Your task to perform on an android device: Show me popular videos on Youtube Image 0: 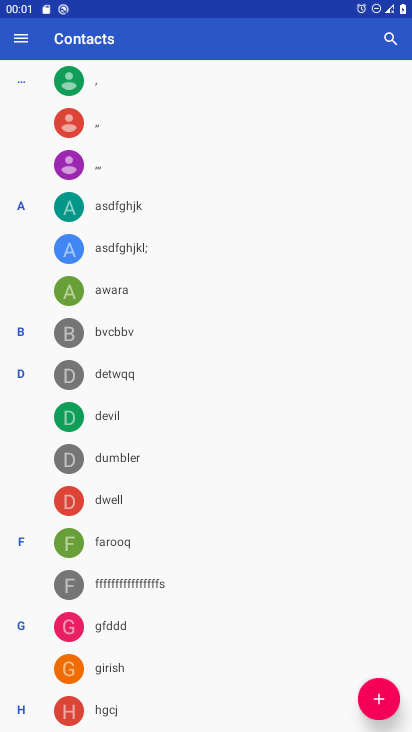
Step 0: press home button
Your task to perform on an android device: Show me popular videos on Youtube Image 1: 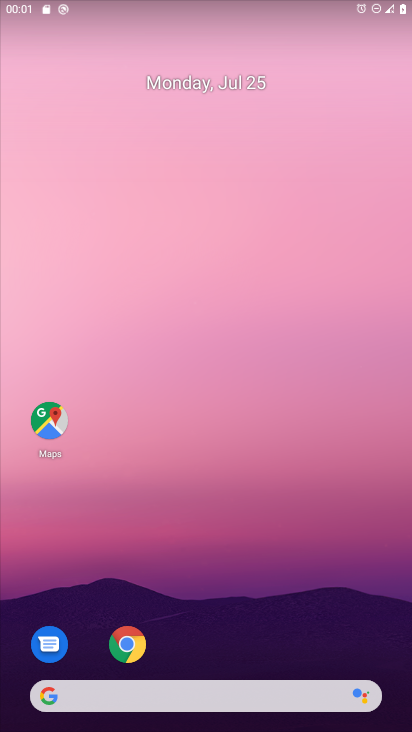
Step 1: drag from (385, 653) to (352, 127)
Your task to perform on an android device: Show me popular videos on Youtube Image 2: 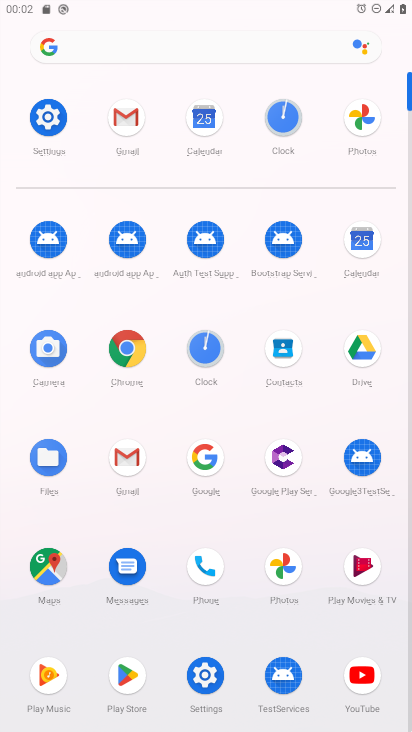
Step 2: click (361, 675)
Your task to perform on an android device: Show me popular videos on Youtube Image 3: 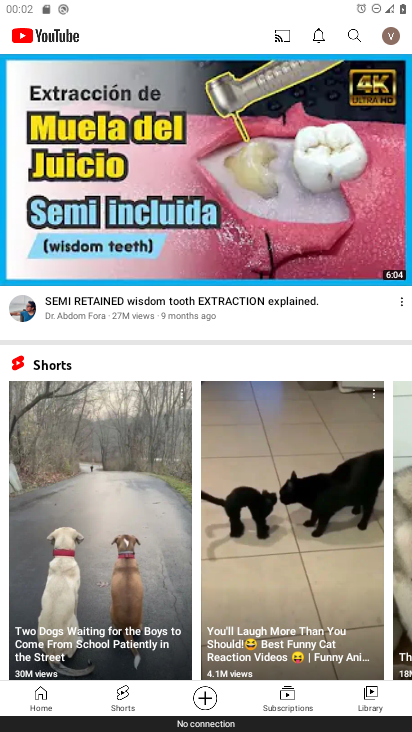
Step 3: drag from (147, 107) to (173, 413)
Your task to perform on an android device: Show me popular videos on Youtube Image 4: 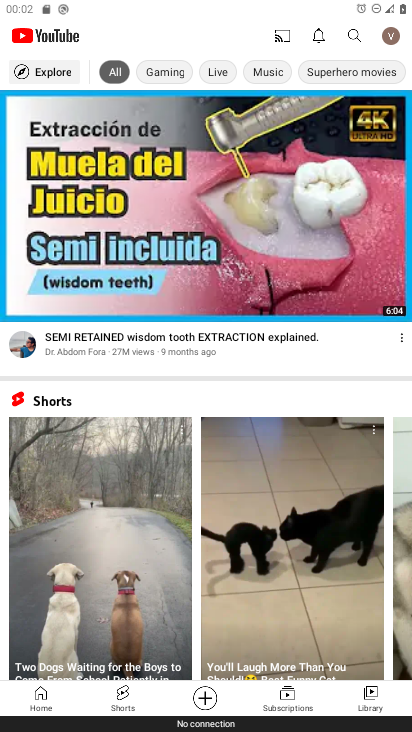
Step 4: click (34, 75)
Your task to perform on an android device: Show me popular videos on Youtube Image 5: 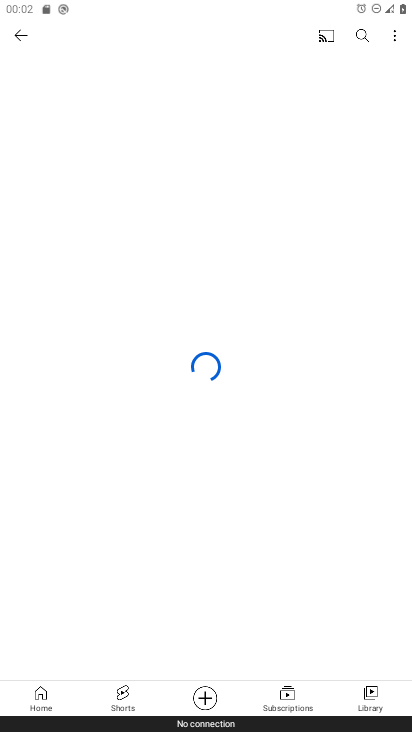
Step 5: press back button
Your task to perform on an android device: Show me popular videos on Youtube Image 6: 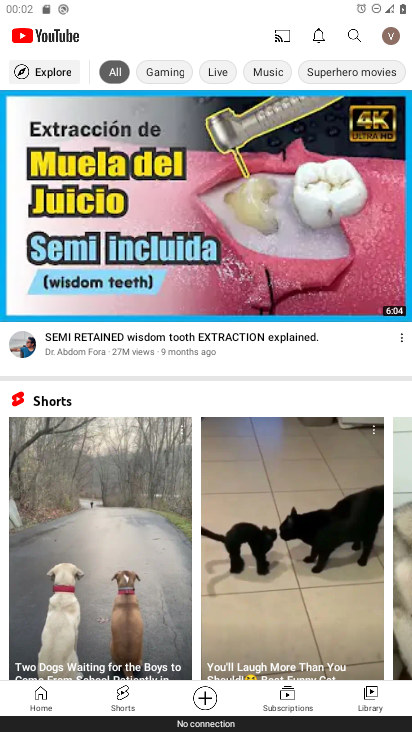
Step 6: click (39, 63)
Your task to perform on an android device: Show me popular videos on Youtube Image 7: 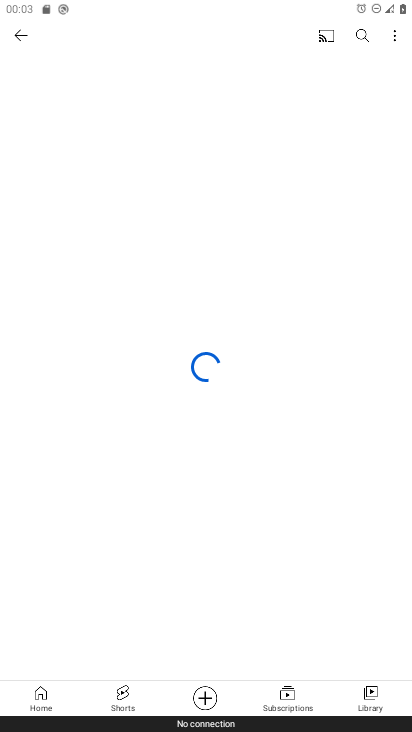
Step 7: task complete